Your task to perform on an android device: Go to sound settings Image 0: 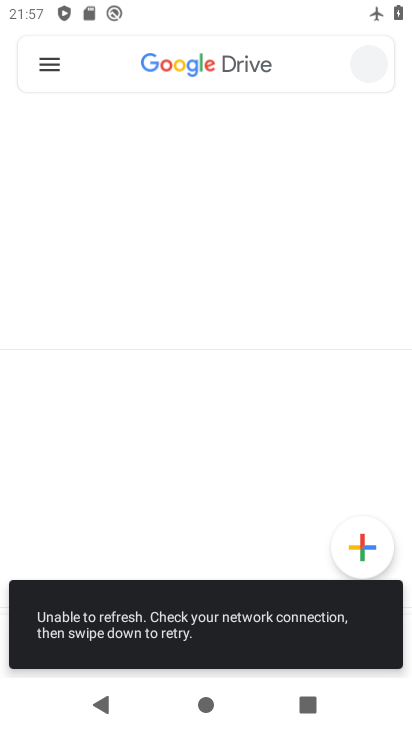
Step 0: drag from (202, 590) to (213, 379)
Your task to perform on an android device: Go to sound settings Image 1: 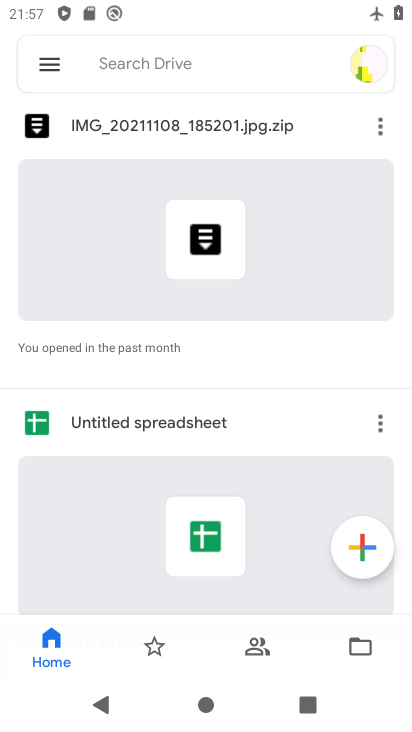
Step 1: press home button
Your task to perform on an android device: Go to sound settings Image 2: 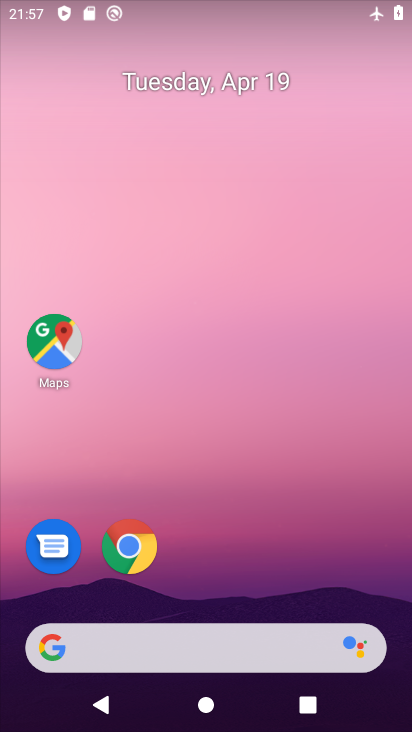
Step 2: drag from (207, 611) to (193, 1)
Your task to perform on an android device: Go to sound settings Image 3: 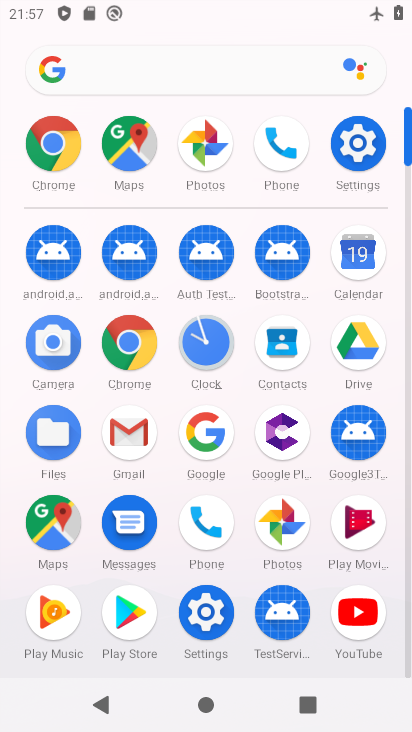
Step 3: click (361, 161)
Your task to perform on an android device: Go to sound settings Image 4: 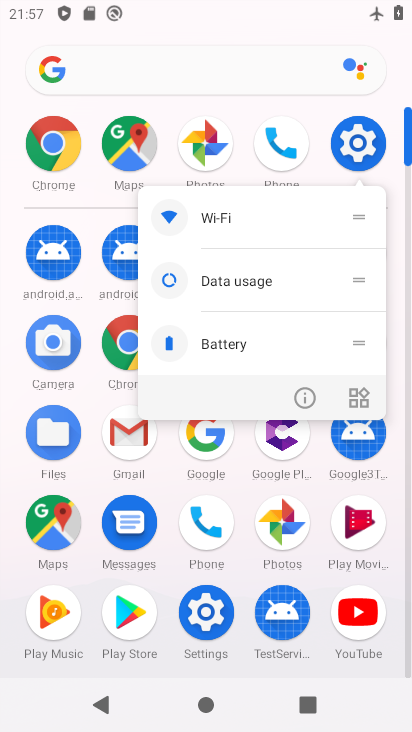
Step 4: click (360, 148)
Your task to perform on an android device: Go to sound settings Image 5: 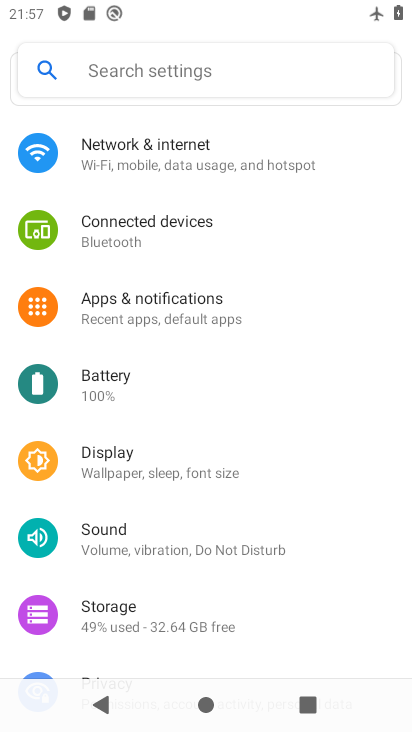
Step 5: click (150, 555)
Your task to perform on an android device: Go to sound settings Image 6: 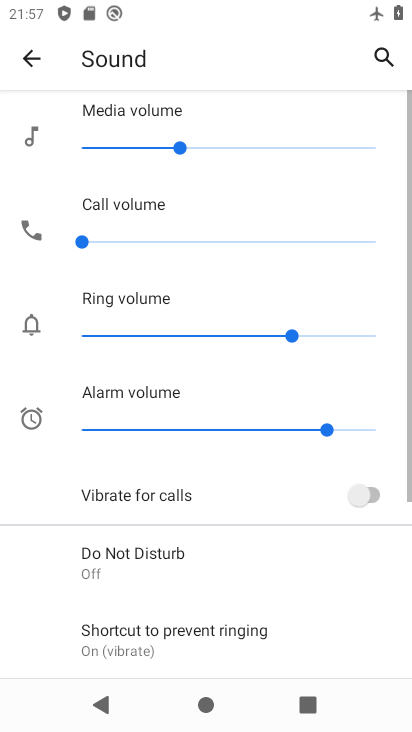
Step 6: task complete